Your task to perform on an android device: turn pop-ups off in chrome Image 0: 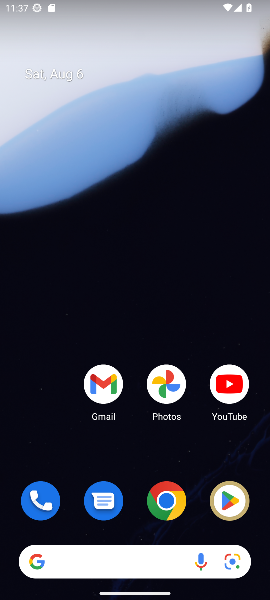
Step 0: click (161, 503)
Your task to perform on an android device: turn pop-ups off in chrome Image 1: 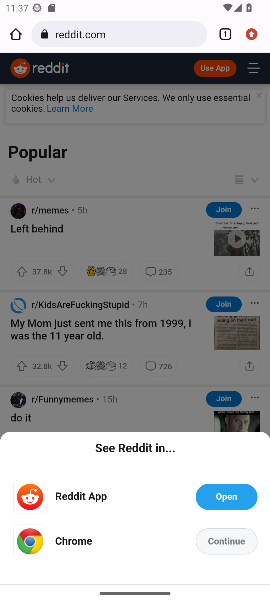
Step 1: click (252, 31)
Your task to perform on an android device: turn pop-ups off in chrome Image 2: 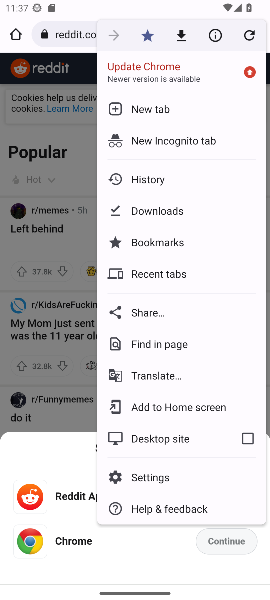
Step 2: click (158, 470)
Your task to perform on an android device: turn pop-ups off in chrome Image 3: 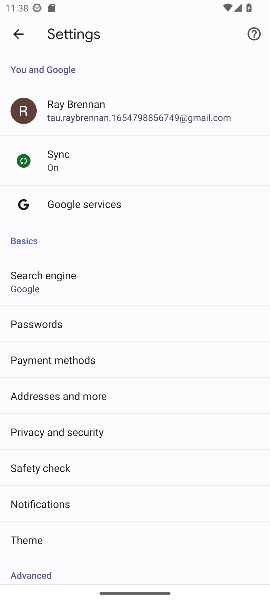
Step 3: drag from (115, 523) to (110, 274)
Your task to perform on an android device: turn pop-ups off in chrome Image 4: 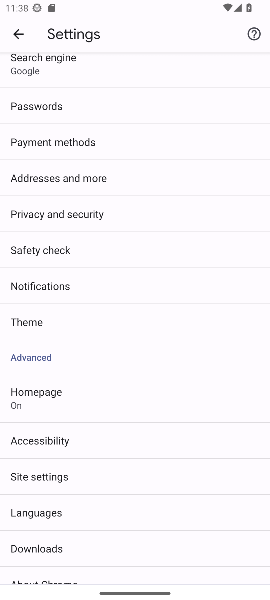
Step 4: click (39, 484)
Your task to perform on an android device: turn pop-ups off in chrome Image 5: 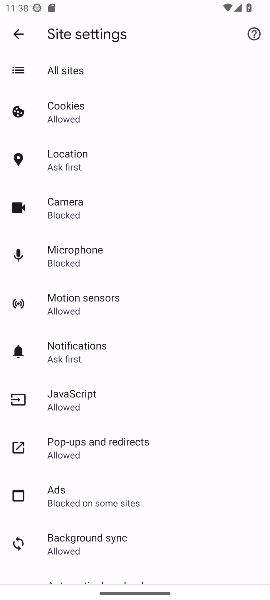
Step 5: click (85, 453)
Your task to perform on an android device: turn pop-ups off in chrome Image 6: 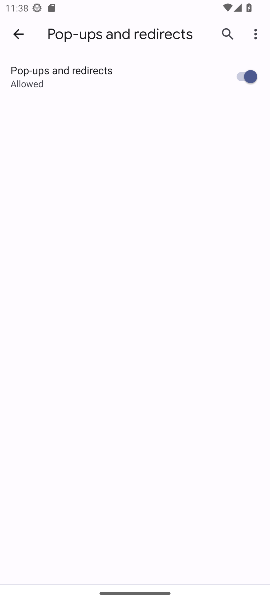
Step 6: task complete